Your task to perform on an android device: Show me the alarms in the clock app Image 0: 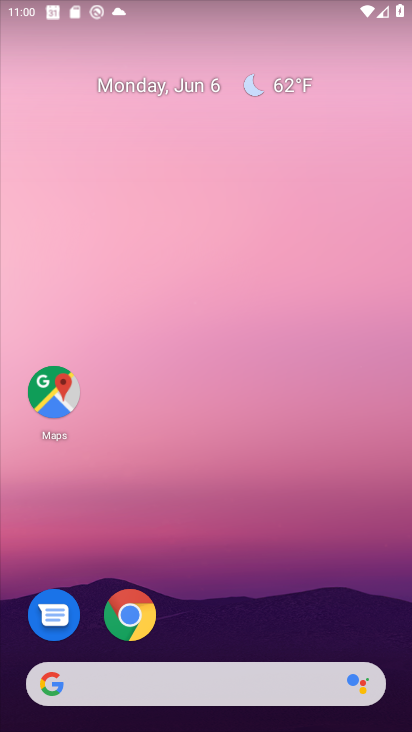
Step 0: drag from (274, 713) to (254, 136)
Your task to perform on an android device: Show me the alarms in the clock app Image 1: 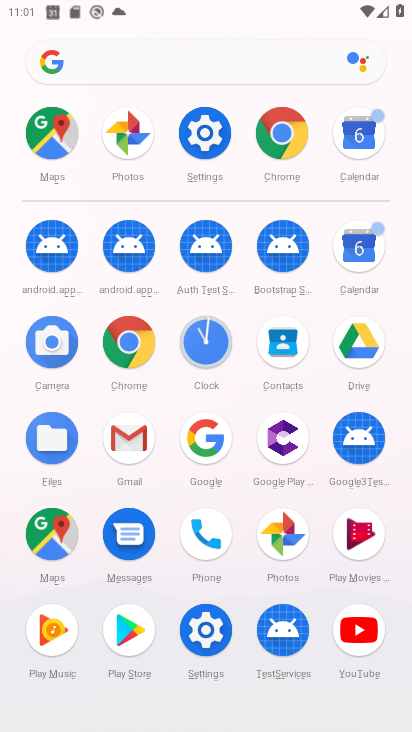
Step 1: click (200, 341)
Your task to perform on an android device: Show me the alarms in the clock app Image 2: 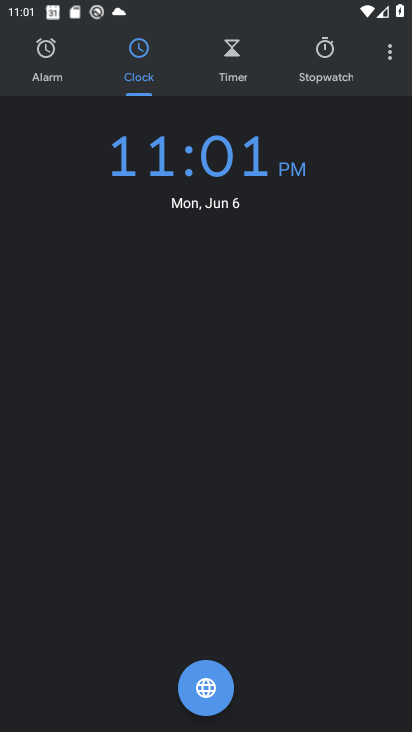
Step 2: click (389, 53)
Your task to perform on an android device: Show me the alarms in the clock app Image 3: 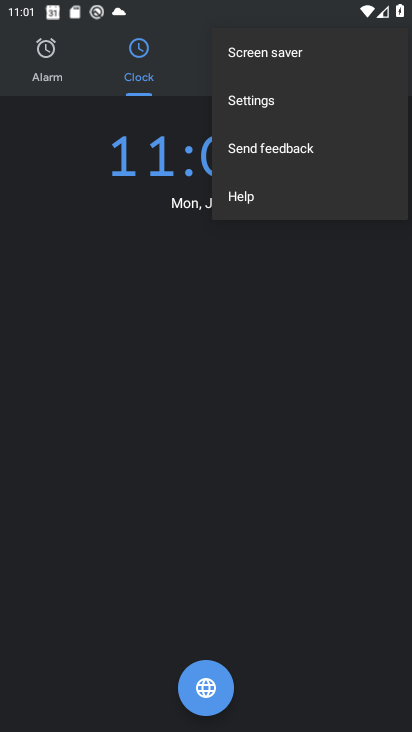
Step 3: click (233, 97)
Your task to perform on an android device: Show me the alarms in the clock app Image 4: 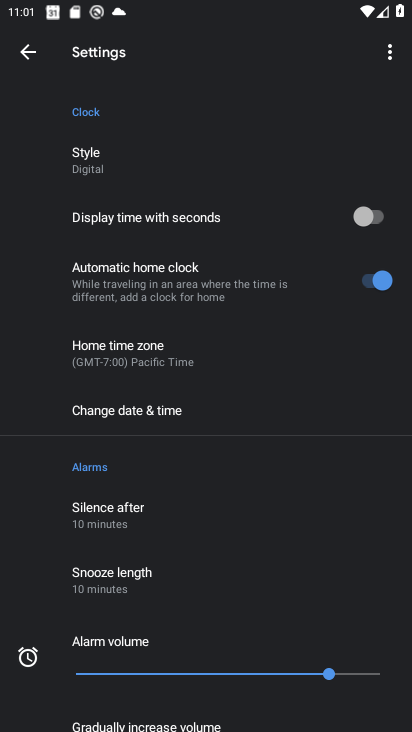
Step 4: click (24, 54)
Your task to perform on an android device: Show me the alarms in the clock app Image 5: 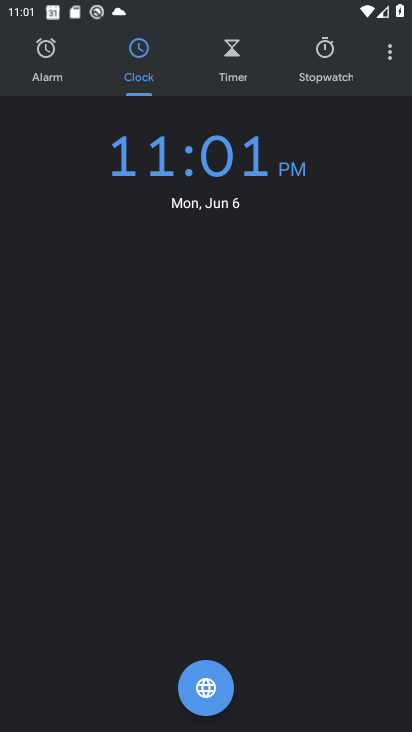
Step 5: click (46, 48)
Your task to perform on an android device: Show me the alarms in the clock app Image 6: 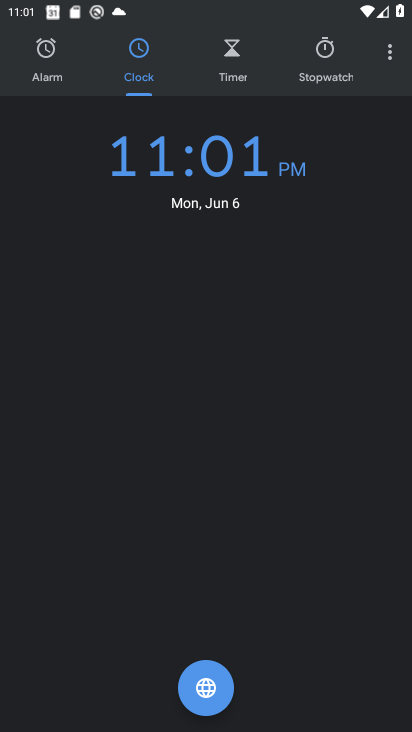
Step 6: task complete